Your task to perform on an android device: turn notification dots on Image 0: 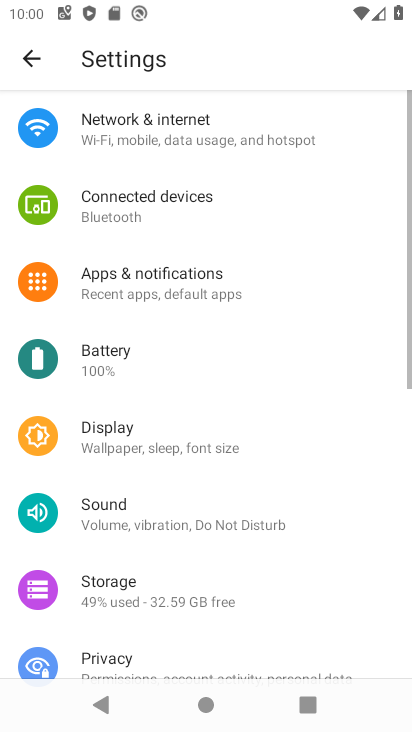
Step 0: click (141, 281)
Your task to perform on an android device: turn notification dots on Image 1: 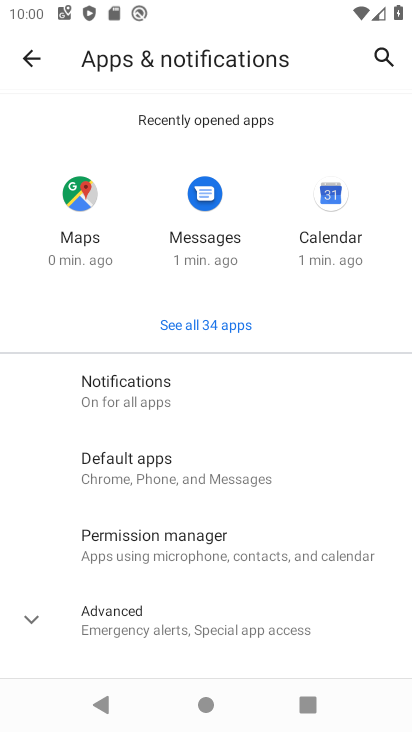
Step 1: click (121, 398)
Your task to perform on an android device: turn notification dots on Image 2: 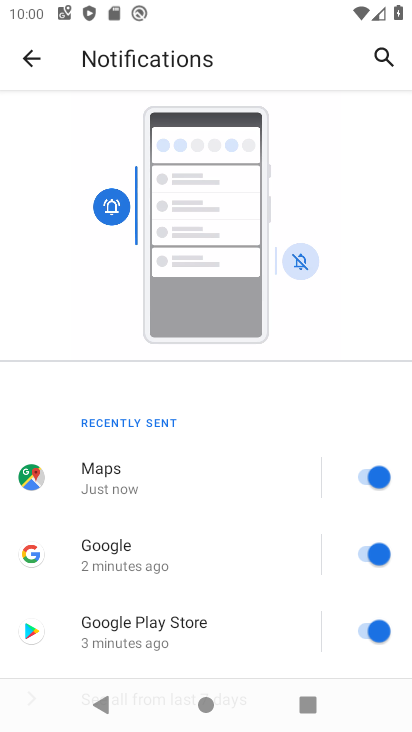
Step 2: drag from (175, 567) to (131, 150)
Your task to perform on an android device: turn notification dots on Image 3: 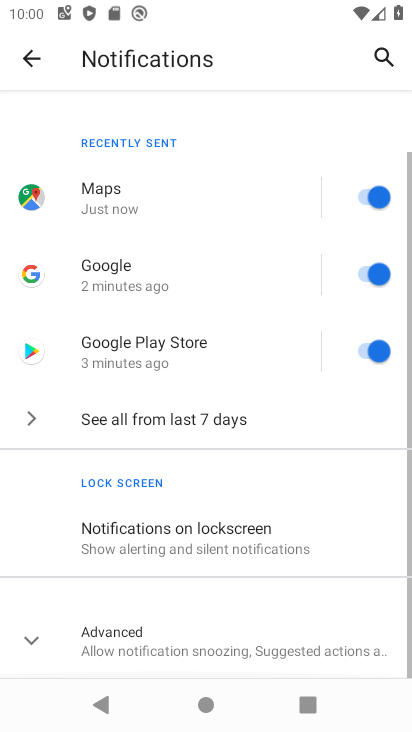
Step 3: drag from (199, 565) to (202, 184)
Your task to perform on an android device: turn notification dots on Image 4: 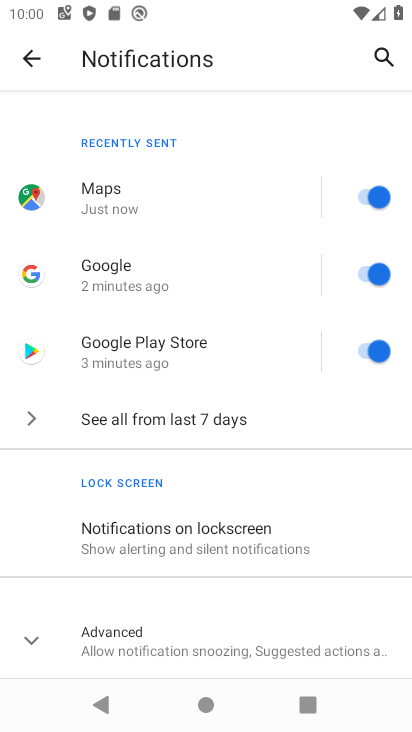
Step 4: click (112, 630)
Your task to perform on an android device: turn notification dots on Image 5: 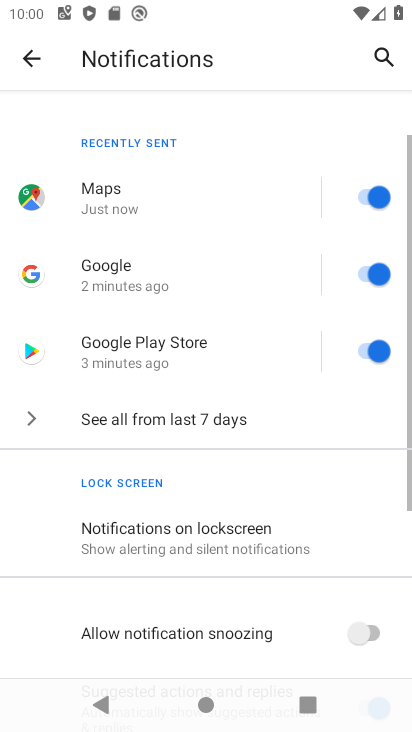
Step 5: task complete